Your task to perform on an android device: Go to Maps Image 0: 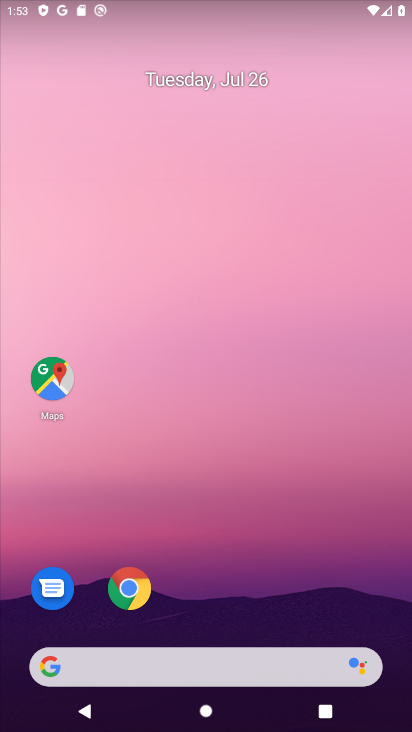
Step 0: drag from (283, 687) to (182, 283)
Your task to perform on an android device: Go to Maps Image 1: 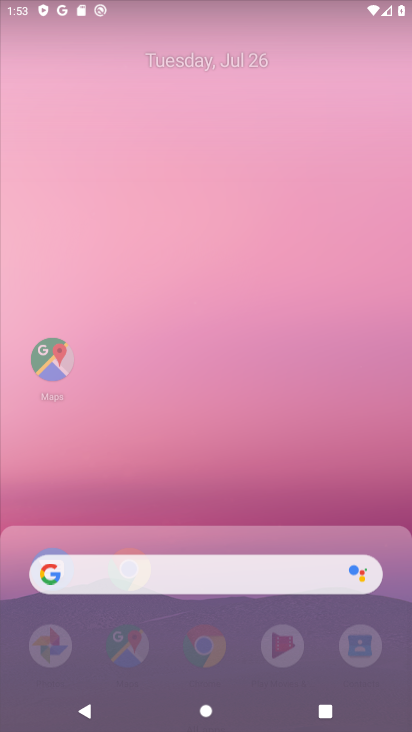
Step 1: drag from (197, 592) to (163, 96)
Your task to perform on an android device: Go to Maps Image 2: 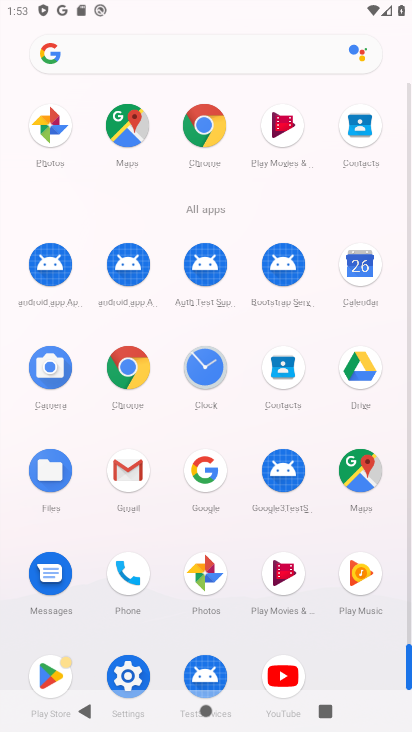
Step 2: drag from (174, 498) to (132, 205)
Your task to perform on an android device: Go to Maps Image 3: 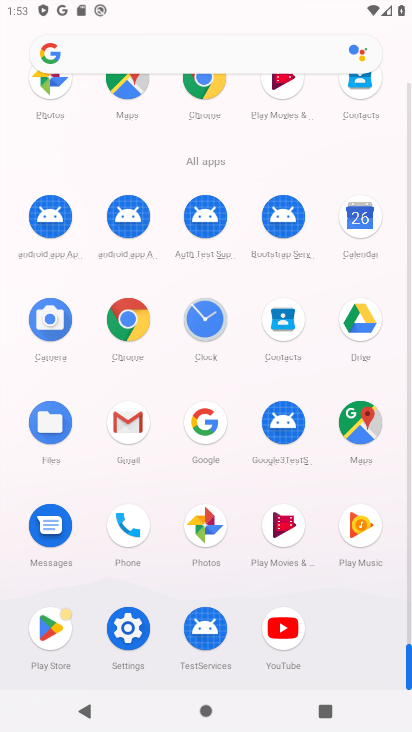
Step 3: click (351, 399)
Your task to perform on an android device: Go to Maps Image 4: 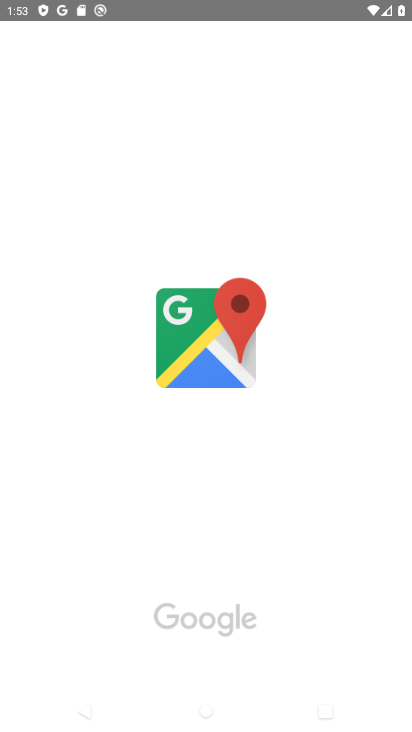
Step 4: click (354, 419)
Your task to perform on an android device: Go to Maps Image 5: 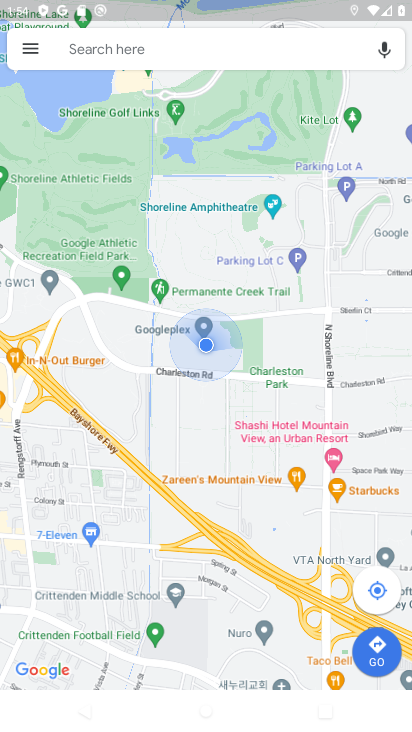
Step 5: task complete